Your task to perform on an android device: turn vacation reply on in the gmail app Image 0: 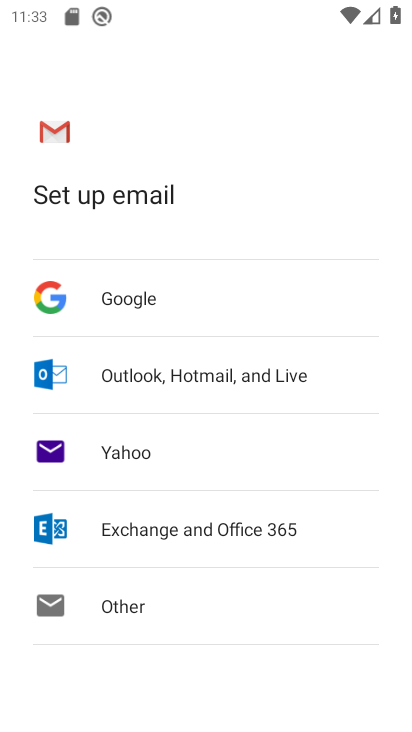
Step 0: press home button
Your task to perform on an android device: turn vacation reply on in the gmail app Image 1: 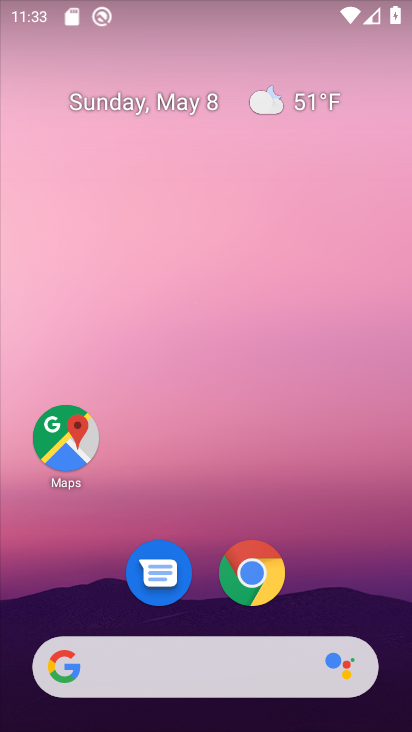
Step 1: drag from (176, 644) to (176, 250)
Your task to perform on an android device: turn vacation reply on in the gmail app Image 2: 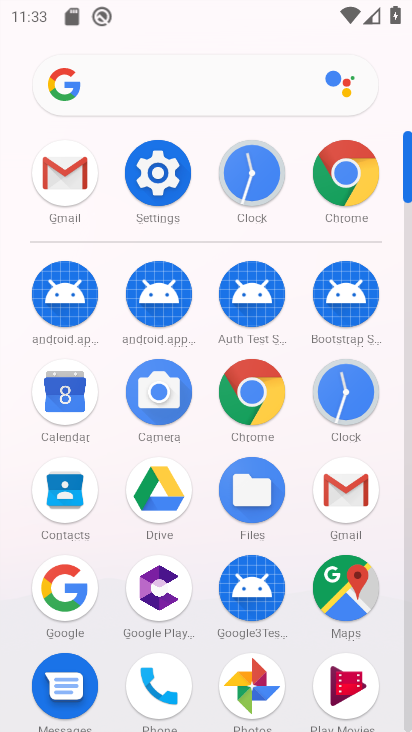
Step 2: click (328, 489)
Your task to perform on an android device: turn vacation reply on in the gmail app Image 3: 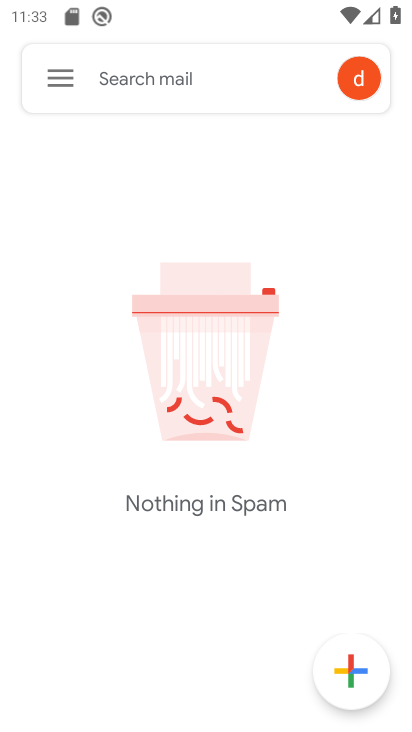
Step 3: click (57, 77)
Your task to perform on an android device: turn vacation reply on in the gmail app Image 4: 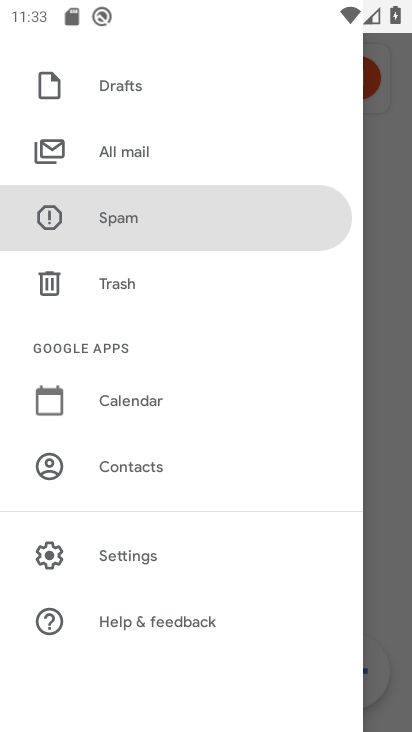
Step 4: click (138, 558)
Your task to perform on an android device: turn vacation reply on in the gmail app Image 5: 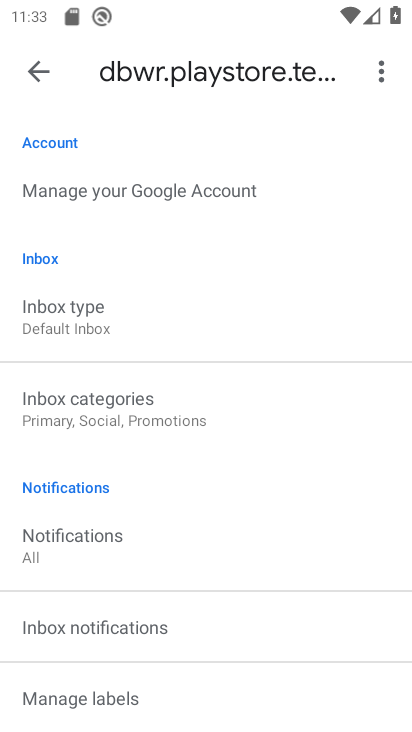
Step 5: drag from (91, 662) to (87, 262)
Your task to perform on an android device: turn vacation reply on in the gmail app Image 6: 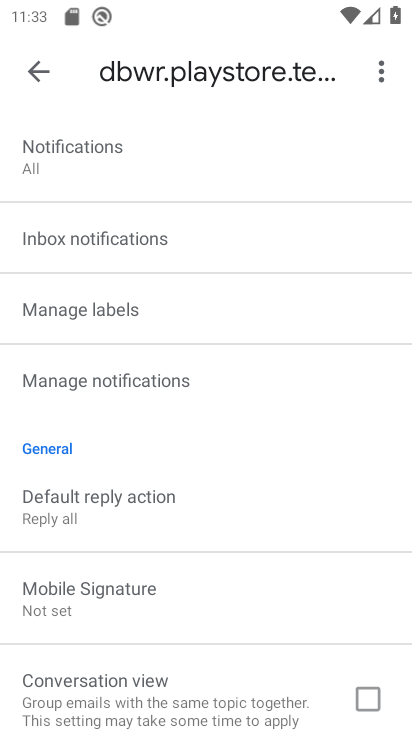
Step 6: drag from (107, 685) to (97, 312)
Your task to perform on an android device: turn vacation reply on in the gmail app Image 7: 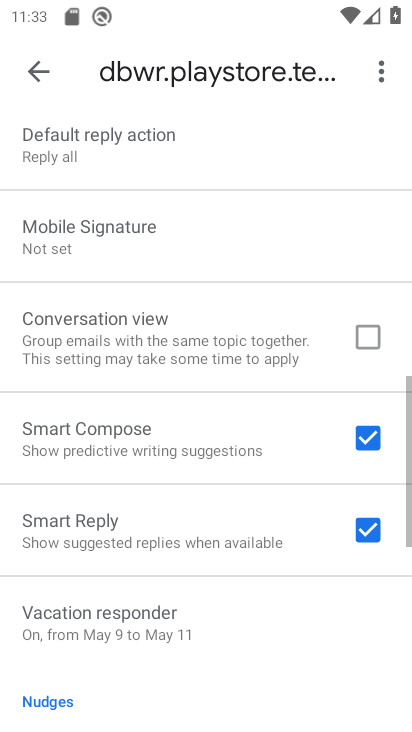
Step 7: click (81, 633)
Your task to perform on an android device: turn vacation reply on in the gmail app Image 8: 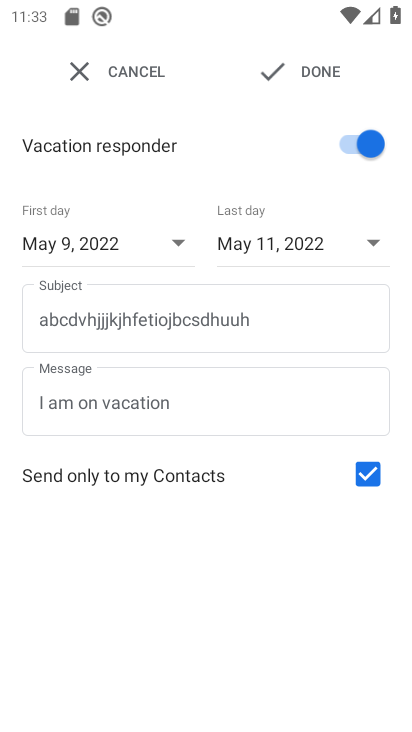
Step 8: click (329, 74)
Your task to perform on an android device: turn vacation reply on in the gmail app Image 9: 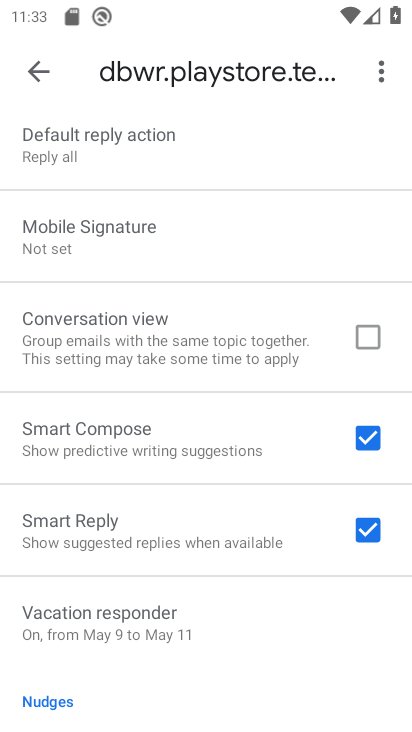
Step 9: task complete